Your task to perform on an android device: Open Google Chrome Image 0: 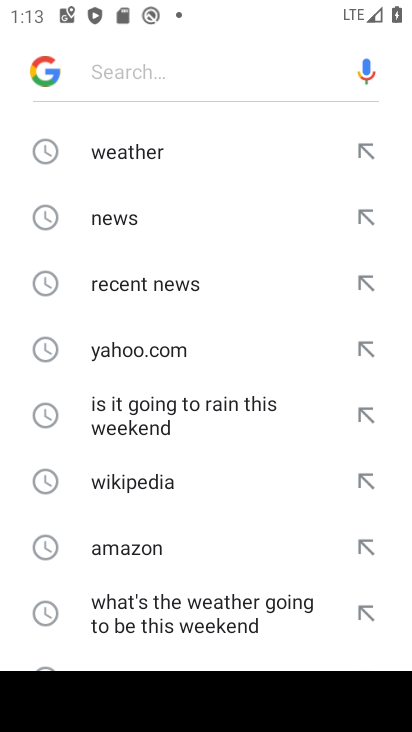
Step 0: press home button
Your task to perform on an android device: Open Google Chrome Image 1: 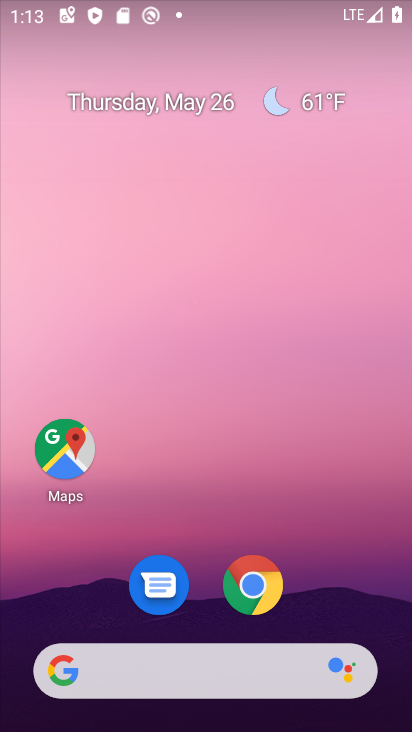
Step 1: click (251, 582)
Your task to perform on an android device: Open Google Chrome Image 2: 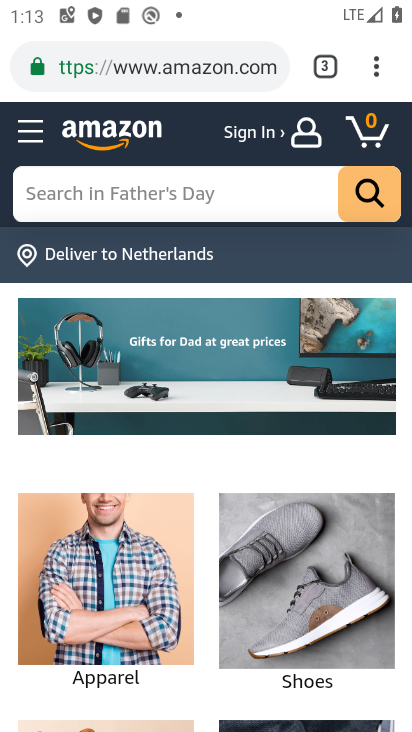
Step 2: click (367, 59)
Your task to perform on an android device: Open Google Chrome Image 3: 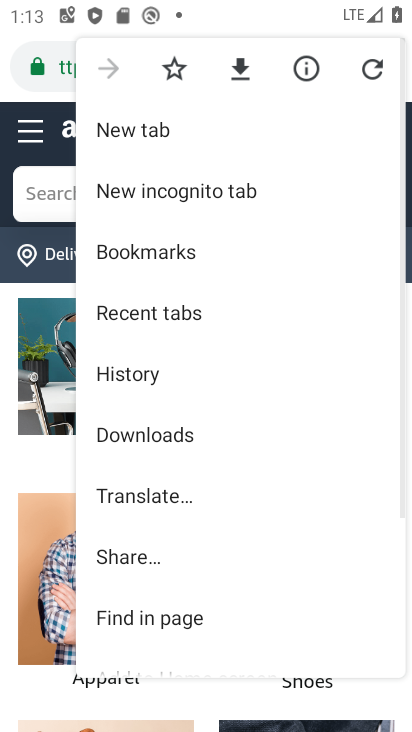
Step 3: click (261, 130)
Your task to perform on an android device: Open Google Chrome Image 4: 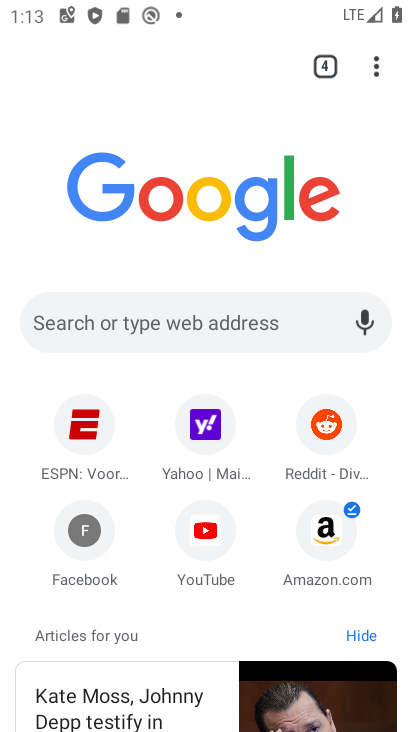
Step 4: task complete